Your task to perform on an android device: Is it going to rain tomorrow? Image 0: 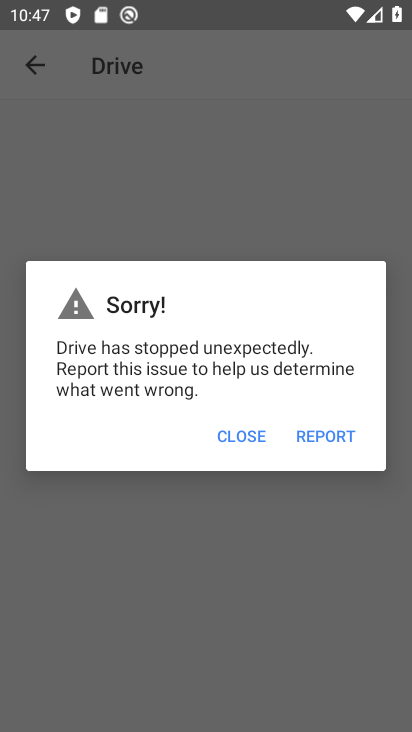
Step 0: press home button
Your task to perform on an android device: Is it going to rain tomorrow? Image 1: 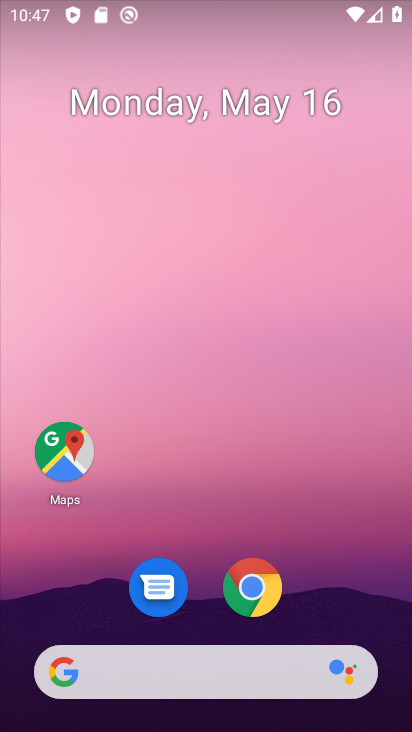
Step 1: drag from (392, 608) to (269, 45)
Your task to perform on an android device: Is it going to rain tomorrow? Image 2: 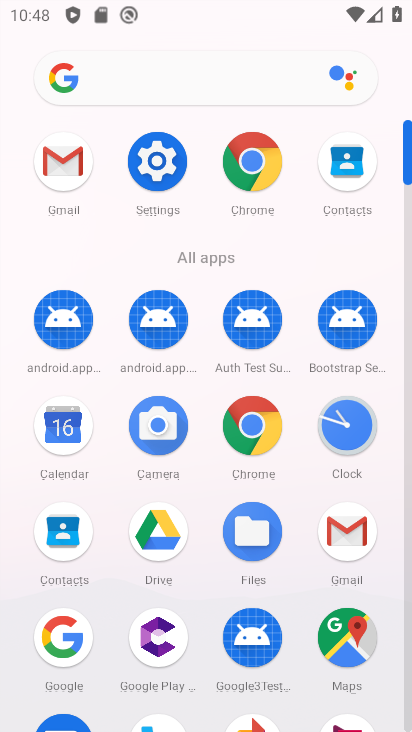
Step 2: click (63, 647)
Your task to perform on an android device: Is it going to rain tomorrow? Image 3: 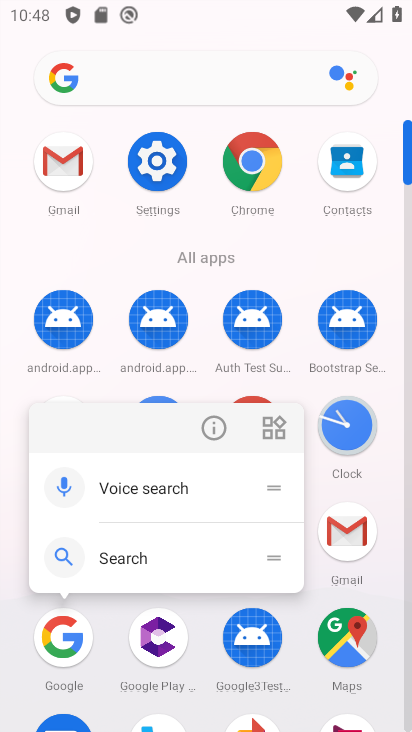
Step 3: click (63, 647)
Your task to perform on an android device: Is it going to rain tomorrow? Image 4: 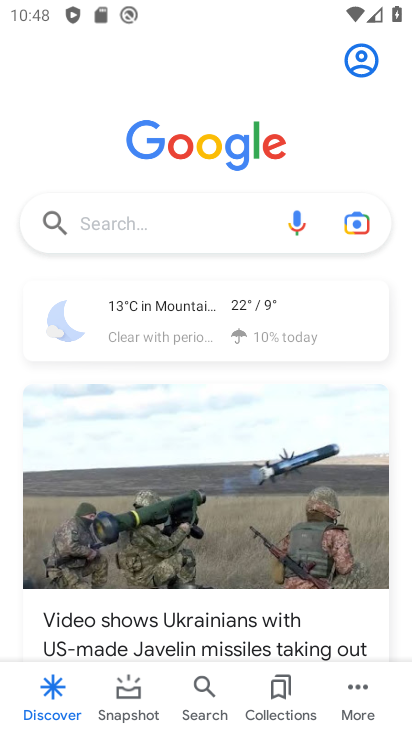
Step 4: click (181, 223)
Your task to perform on an android device: Is it going to rain tomorrow? Image 5: 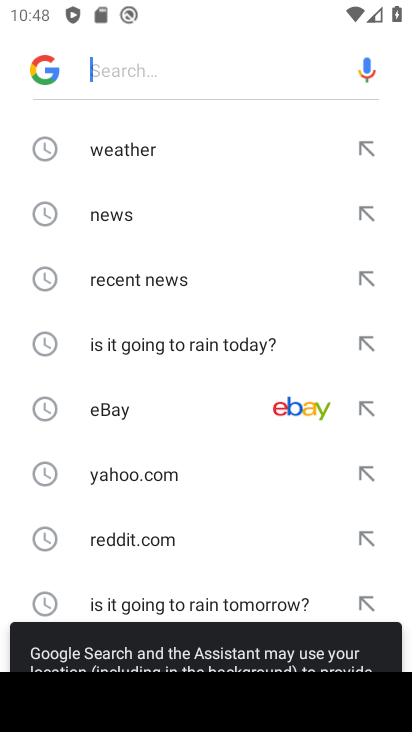
Step 5: drag from (190, 500) to (212, 330)
Your task to perform on an android device: Is it going to rain tomorrow? Image 6: 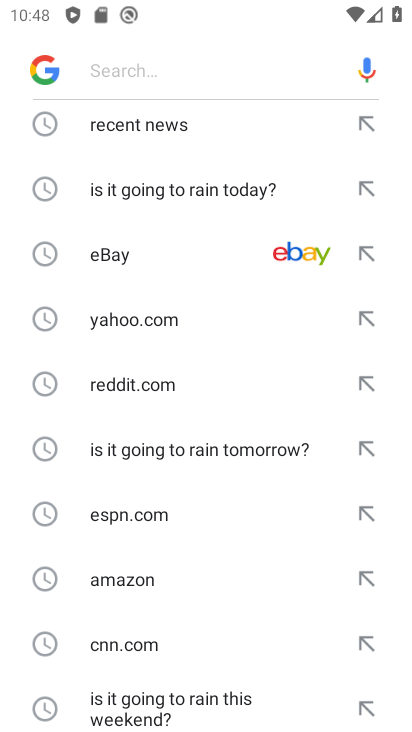
Step 6: click (243, 441)
Your task to perform on an android device: Is it going to rain tomorrow? Image 7: 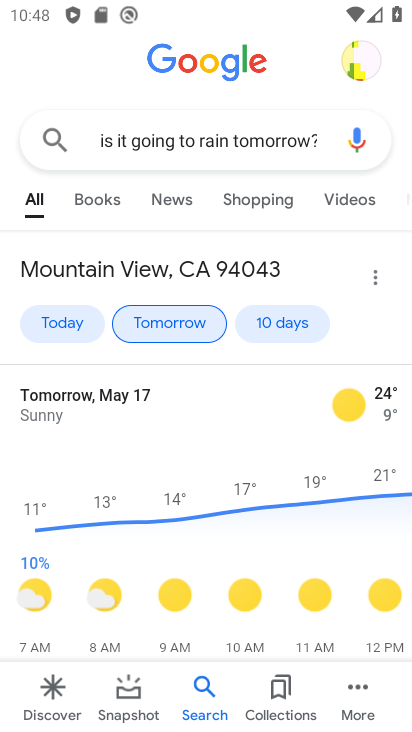
Step 7: task complete